Your task to perform on an android device: turn on priority inbox in the gmail app Image 0: 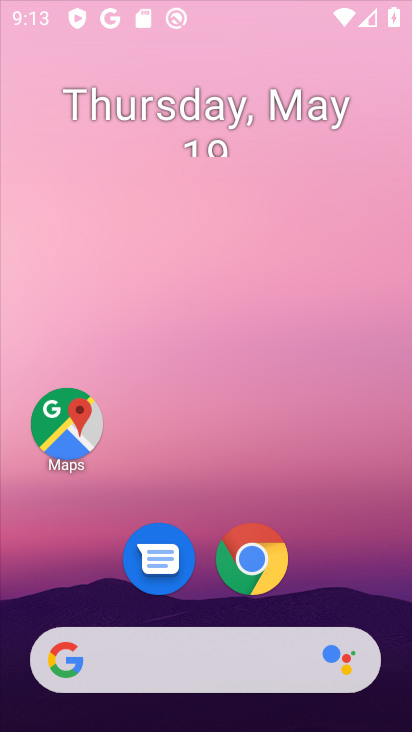
Step 0: click (77, 414)
Your task to perform on an android device: turn on priority inbox in the gmail app Image 1: 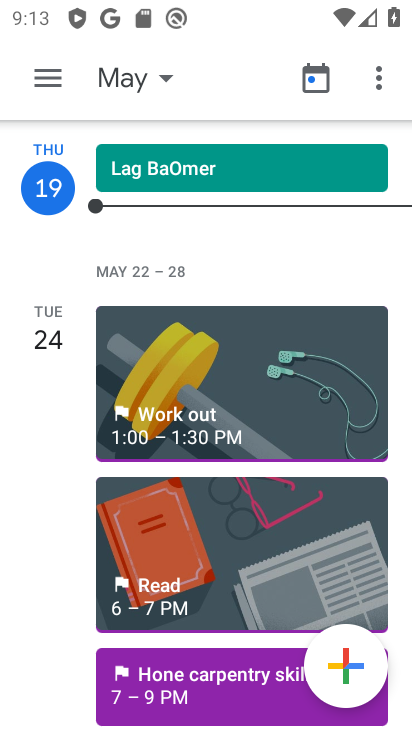
Step 1: press home button
Your task to perform on an android device: turn on priority inbox in the gmail app Image 2: 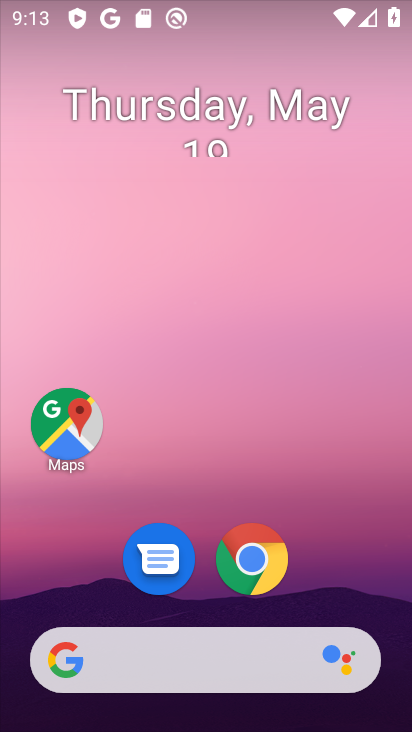
Step 2: drag from (317, 489) to (262, 83)
Your task to perform on an android device: turn on priority inbox in the gmail app Image 3: 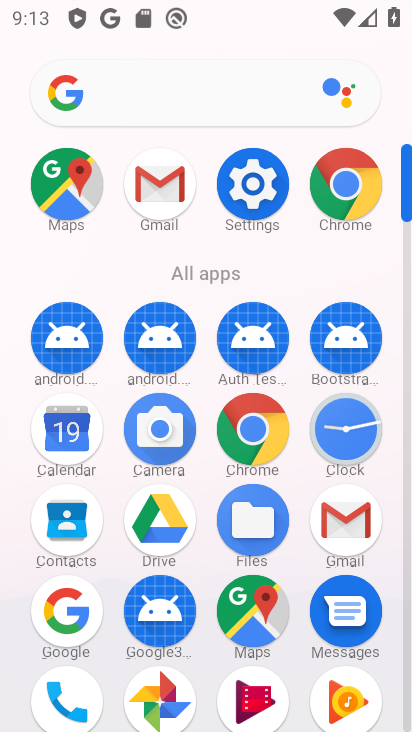
Step 3: click (166, 207)
Your task to perform on an android device: turn on priority inbox in the gmail app Image 4: 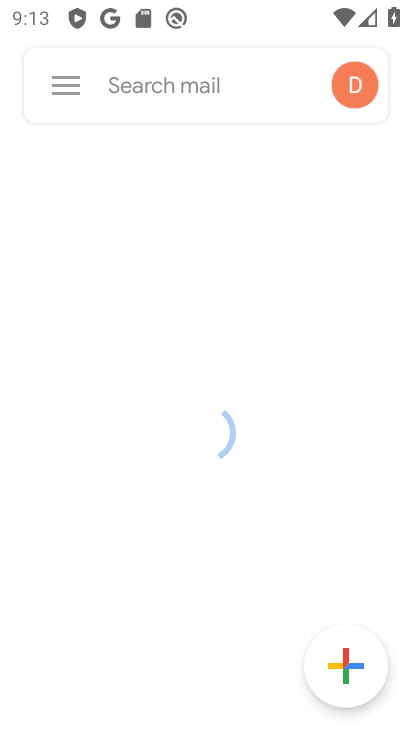
Step 4: click (79, 84)
Your task to perform on an android device: turn on priority inbox in the gmail app Image 5: 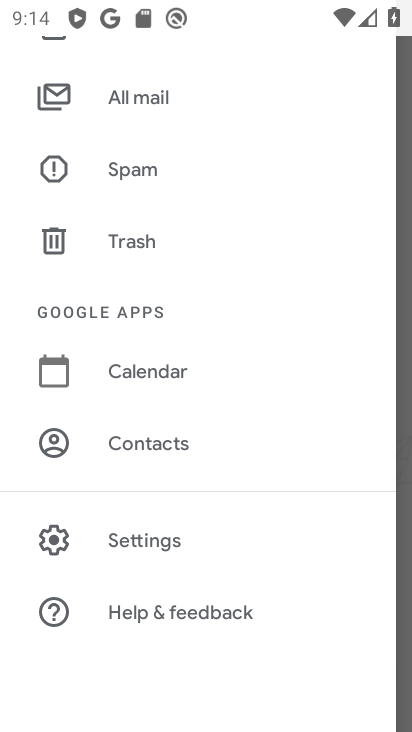
Step 5: click (168, 540)
Your task to perform on an android device: turn on priority inbox in the gmail app Image 6: 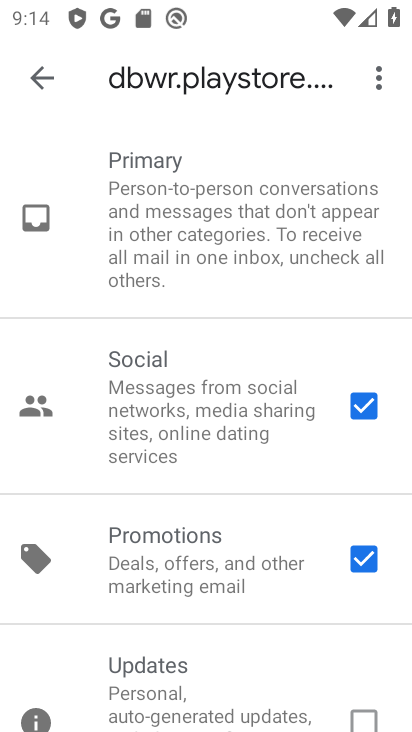
Step 6: click (49, 68)
Your task to perform on an android device: turn on priority inbox in the gmail app Image 7: 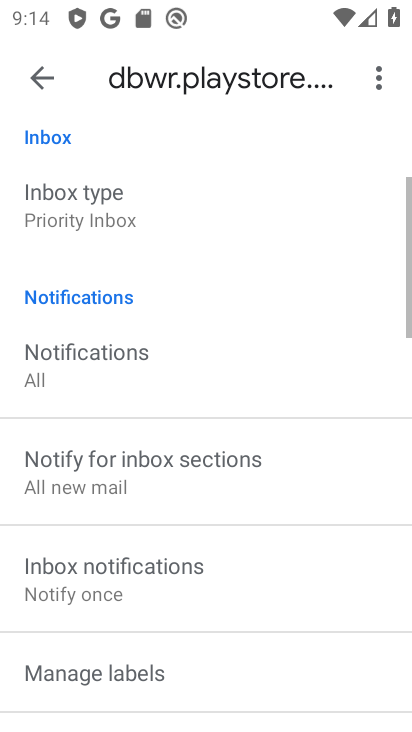
Step 7: drag from (200, 193) to (239, 649)
Your task to perform on an android device: turn on priority inbox in the gmail app Image 8: 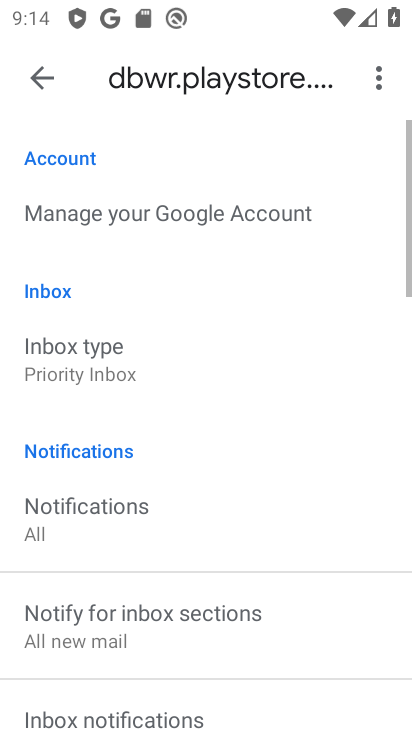
Step 8: drag from (173, 182) to (167, 441)
Your task to perform on an android device: turn on priority inbox in the gmail app Image 9: 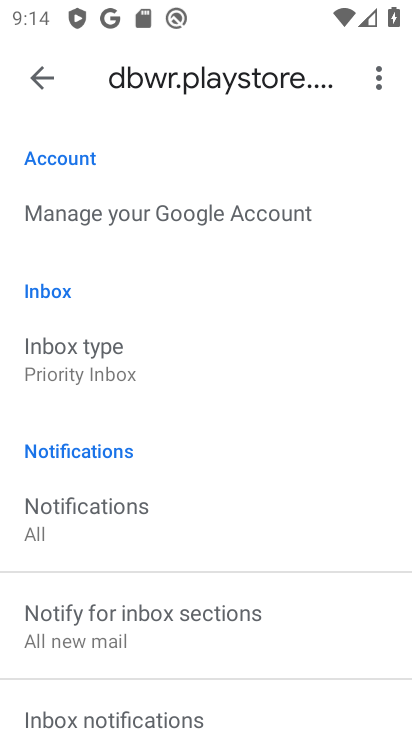
Step 9: click (82, 350)
Your task to perform on an android device: turn on priority inbox in the gmail app Image 10: 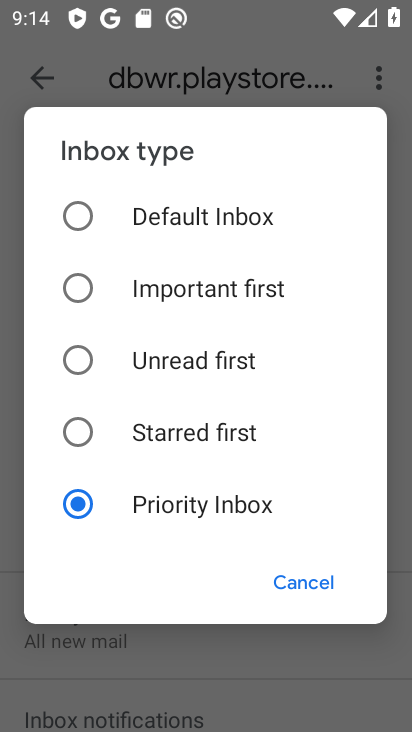
Step 10: task complete